Your task to perform on an android device: Open calendar and show me the first week of next month Image 0: 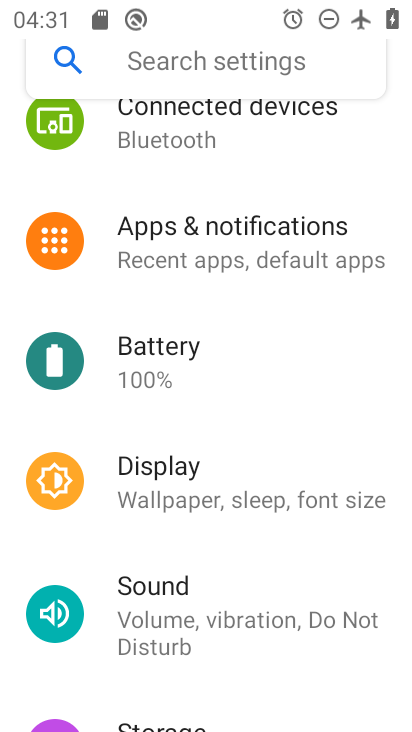
Step 0: press home button
Your task to perform on an android device: Open calendar and show me the first week of next month Image 1: 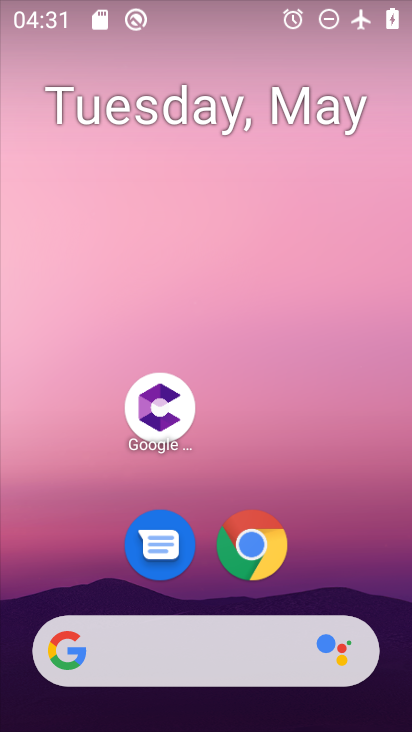
Step 1: drag from (385, 588) to (367, 198)
Your task to perform on an android device: Open calendar and show me the first week of next month Image 2: 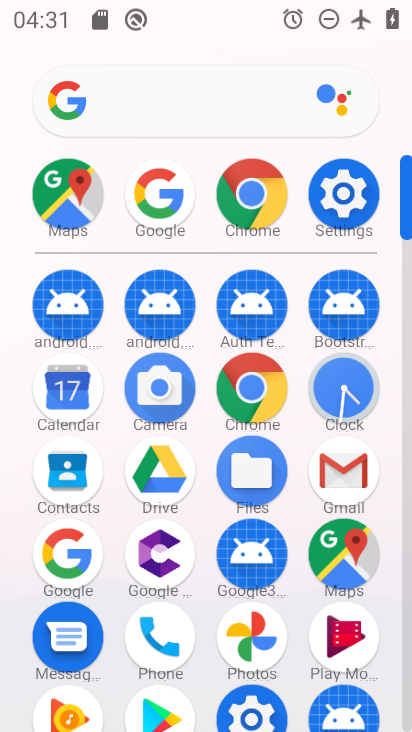
Step 2: click (76, 405)
Your task to perform on an android device: Open calendar and show me the first week of next month Image 3: 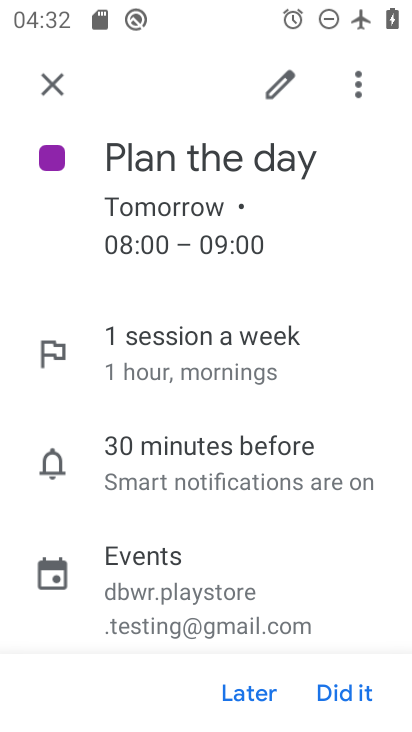
Step 3: click (48, 83)
Your task to perform on an android device: Open calendar and show me the first week of next month Image 4: 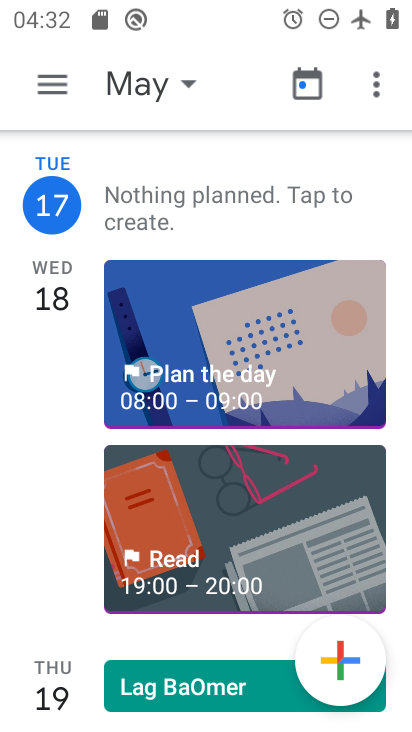
Step 4: click (193, 83)
Your task to perform on an android device: Open calendar and show me the first week of next month Image 5: 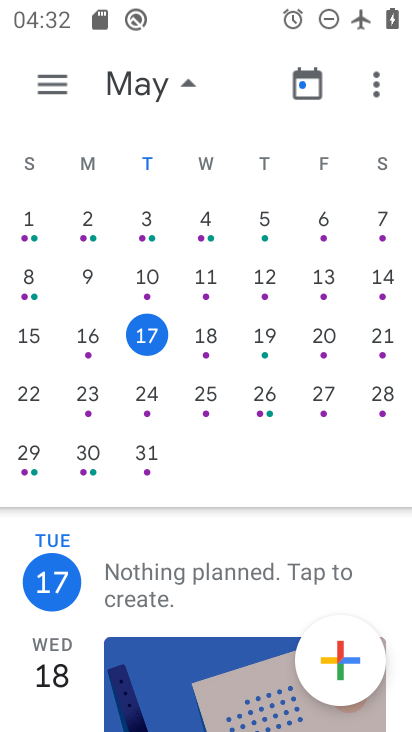
Step 5: drag from (390, 184) to (9, 212)
Your task to perform on an android device: Open calendar and show me the first week of next month Image 6: 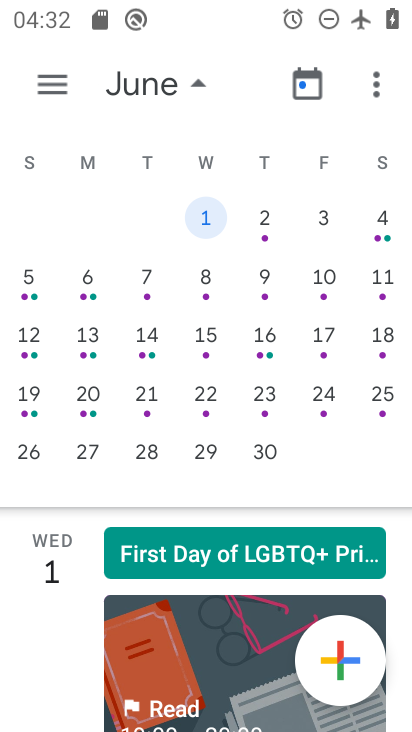
Step 6: click (208, 219)
Your task to perform on an android device: Open calendar and show me the first week of next month Image 7: 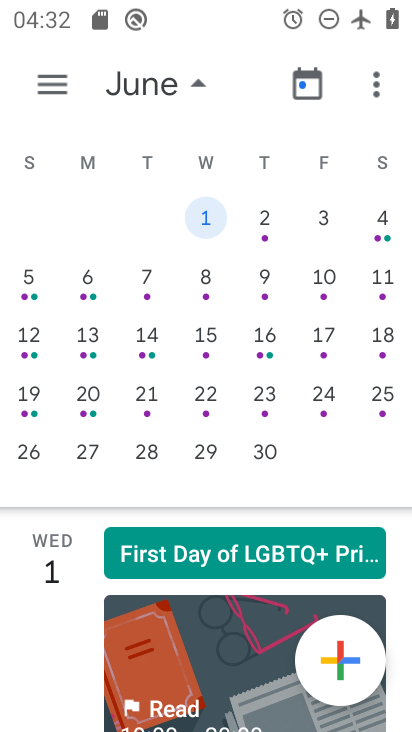
Step 7: task complete